Your task to perform on an android device: empty trash in google photos Image 0: 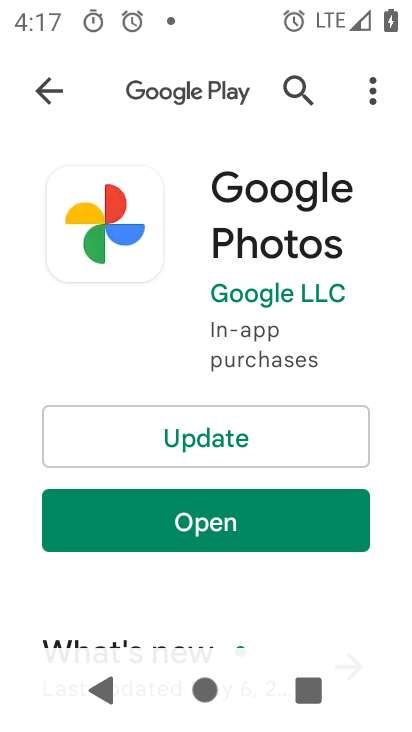
Step 0: click (204, 520)
Your task to perform on an android device: empty trash in google photos Image 1: 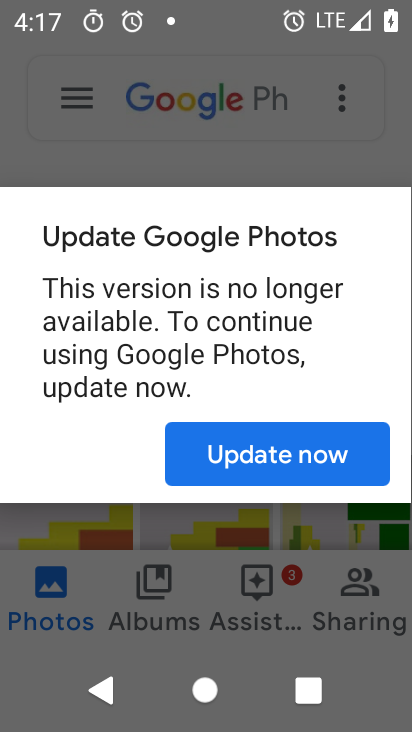
Step 1: click (248, 462)
Your task to perform on an android device: empty trash in google photos Image 2: 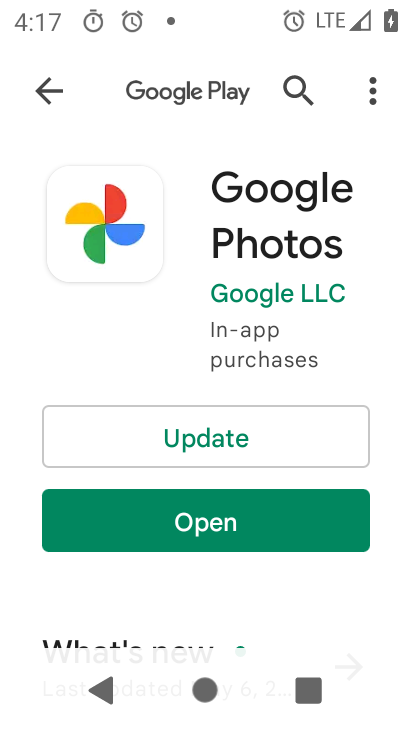
Step 2: click (180, 518)
Your task to perform on an android device: empty trash in google photos Image 3: 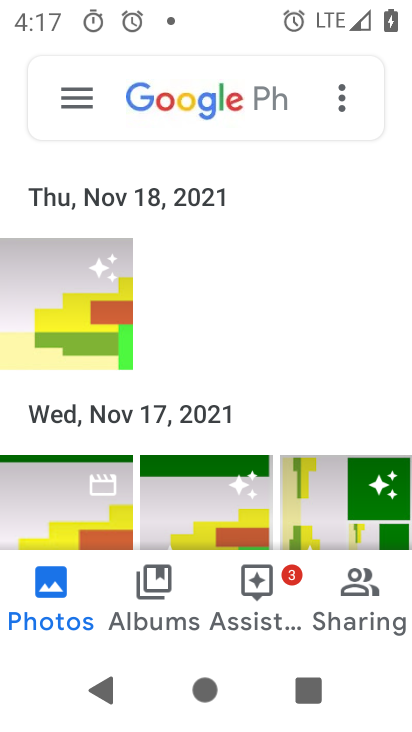
Step 3: click (90, 96)
Your task to perform on an android device: empty trash in google photos Image 4: 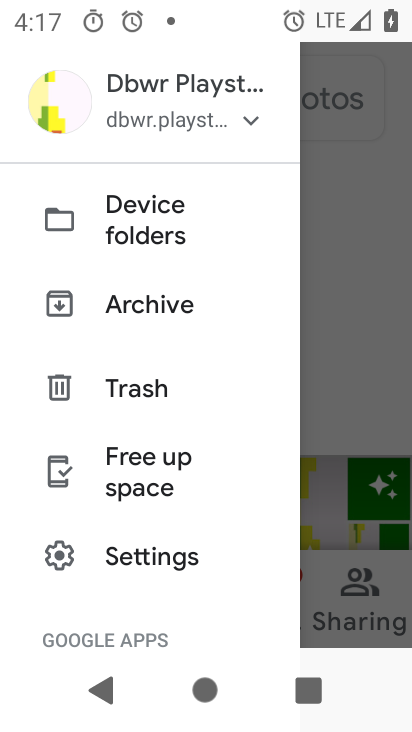
Step 4: click (123, 386)
Your task to perform on an android device: empty trash in google photos Image 5: 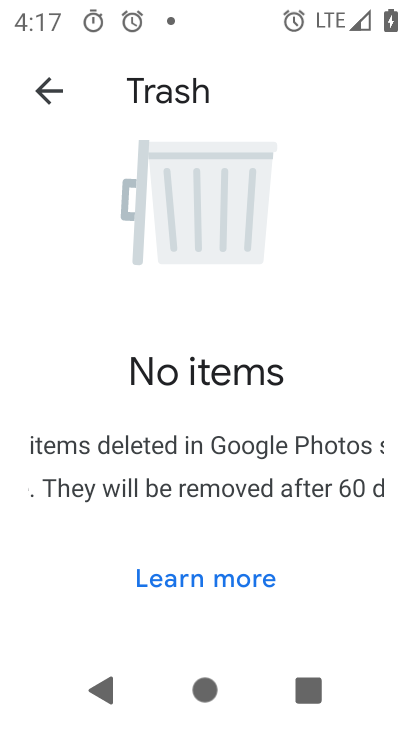
Step 5: task complete